Your task to perform on an android device: all mails in gmail Image 0: 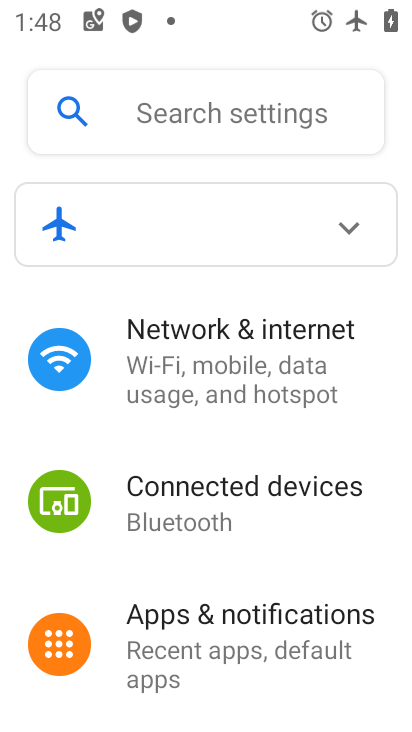
Step 0: press home button
Your task to perform on an android device: all mails in gmail Image 1: 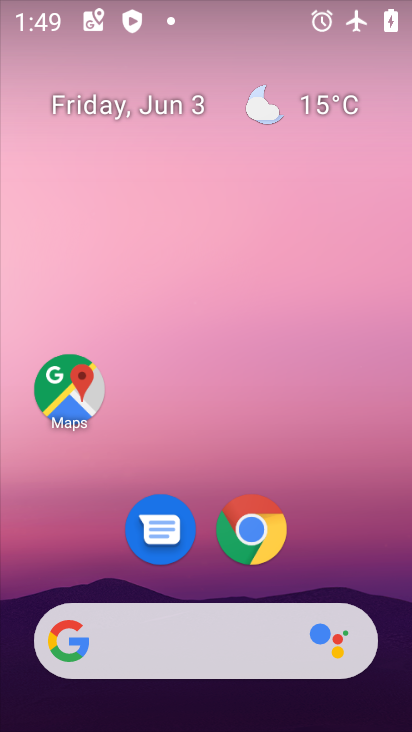
Step 1: drag from (363, 573) to (364, 176)
Your task to perform on an android device: all mails in gmail Image 2: 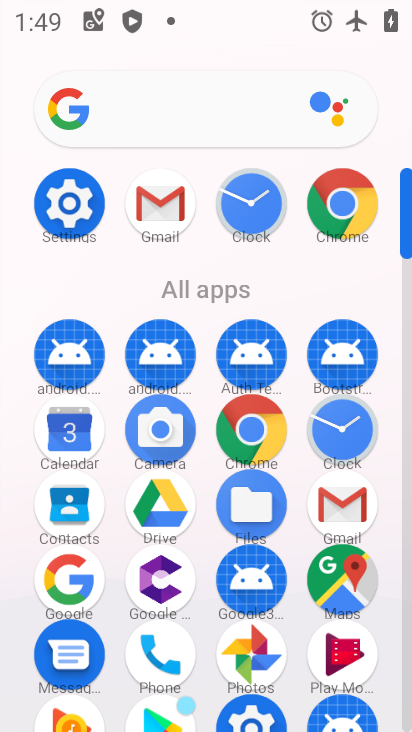
Step 2: click (358, 498)
Your task to perform on an android device: all mails in gmail Image 3: 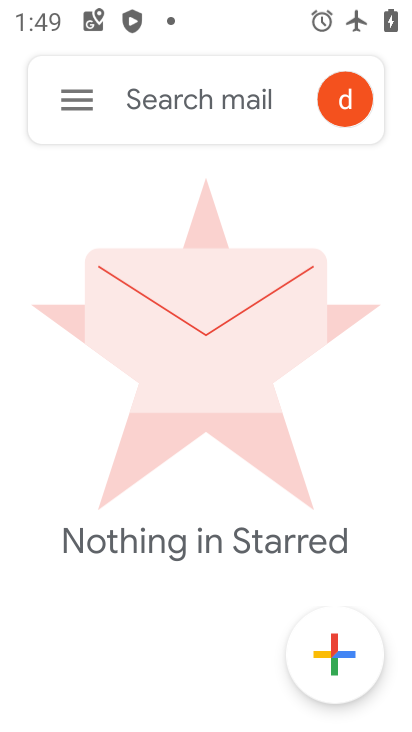
Step 3: click (86, 111)
Your task to perform on an android device: all mails in gmail Image 4: 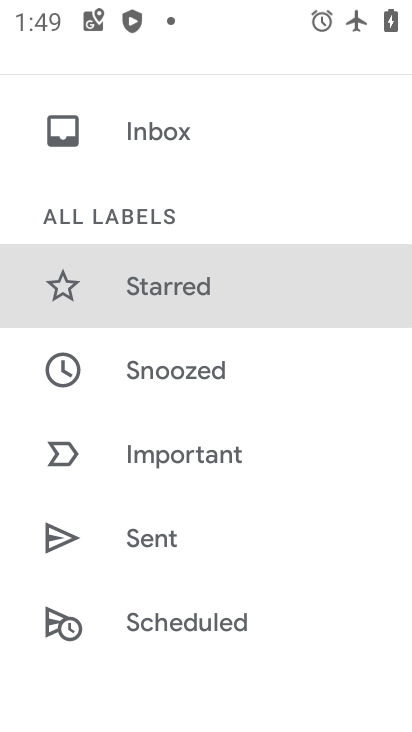
Step 4: drag from (328, 205) to (327, 367)
Your task to perform on an android device: all mails in gmail Image 5: 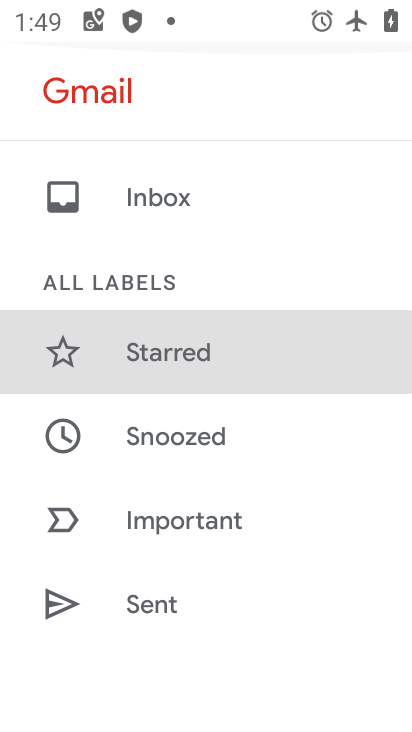
Step 5: drag from (325, 444) to (324, 320)
Your task to perform on an android device: all mails in gmail Image 6: 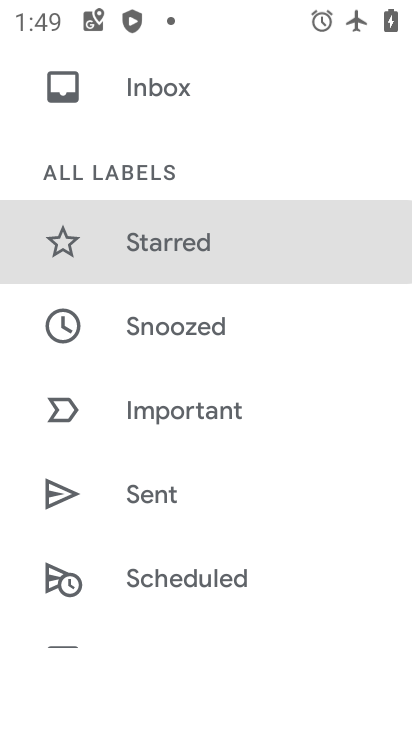
Step 6: drag from (334, 455) to (343, 350)
Your task to perform on an android device: all mails in gmail Image 7: 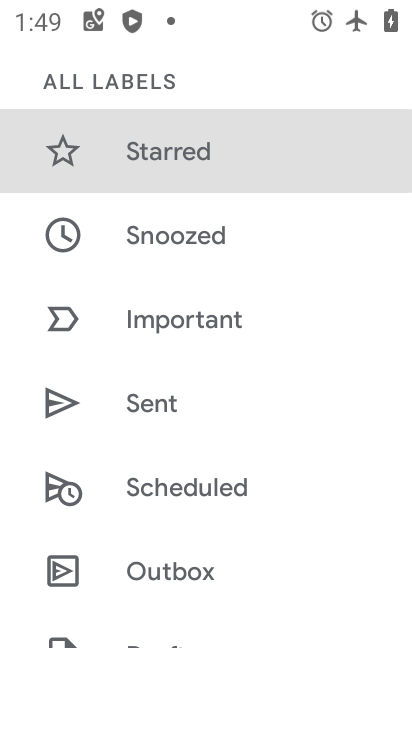
Step 7: drag from (337, 515) to (349, 376)
Your task to perform on an android device: all mails in gmail Image 8: 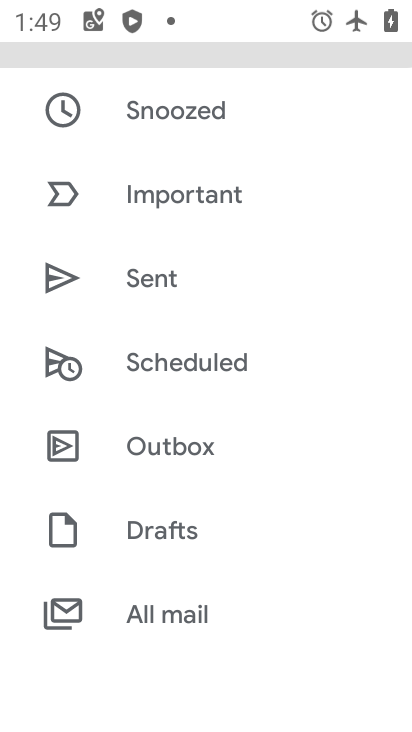
Step 8: drag from (322, 466) to (322, 374)
Your task to perform on an android device: all mails in gmail Image 9: 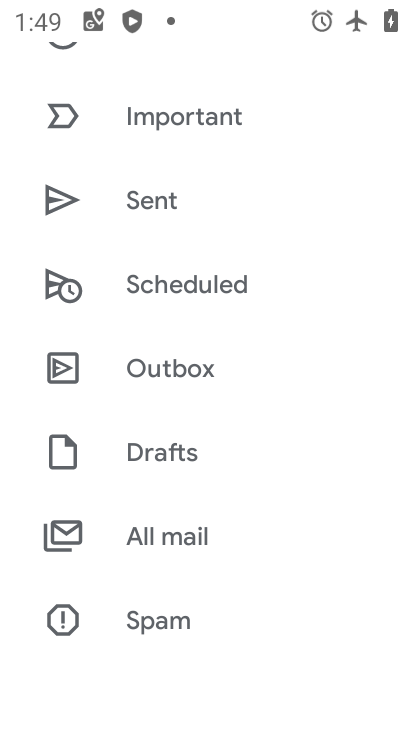
Step 9: drag from (329, 498) to (334, 338)
Your task to perform on an android device: all mails in gmail Image 10: 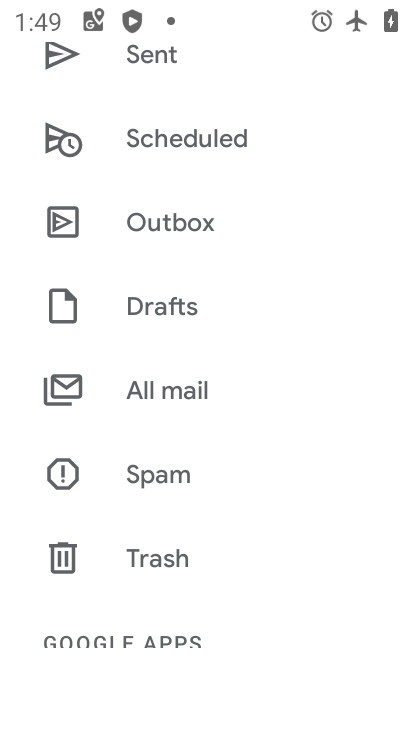
Step 10: drag from (347, 431) to (345, 261)
Your task to perform on an android device: all mails in gmail Image 11: 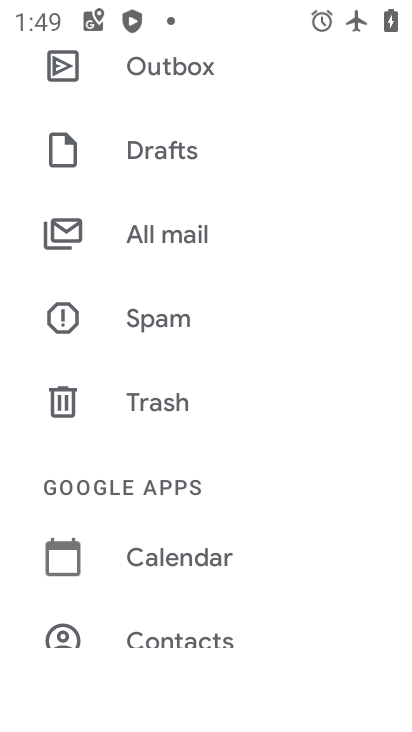
Step 11: drag from (345, 401) to (343, 202)
Your task to perform on an android device: all mails in gmail Image 12: 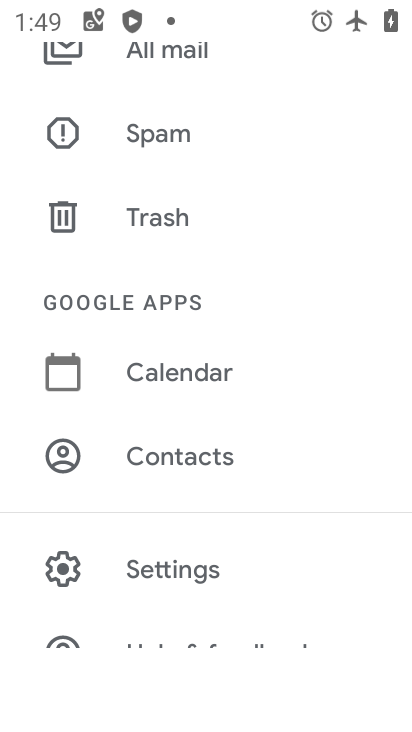
Step 12: click (200, 63)
Your task to perform on an android device: all mails in gmail Image 13: 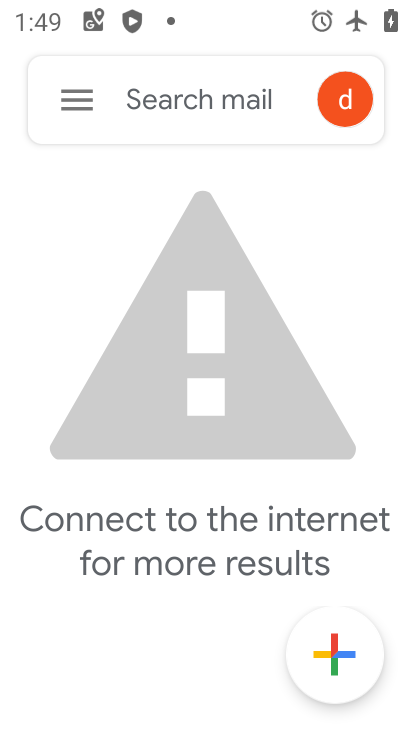
Step 13: task complete